Your task to perform on an android device: toggle translation in the chrome app Image 0: 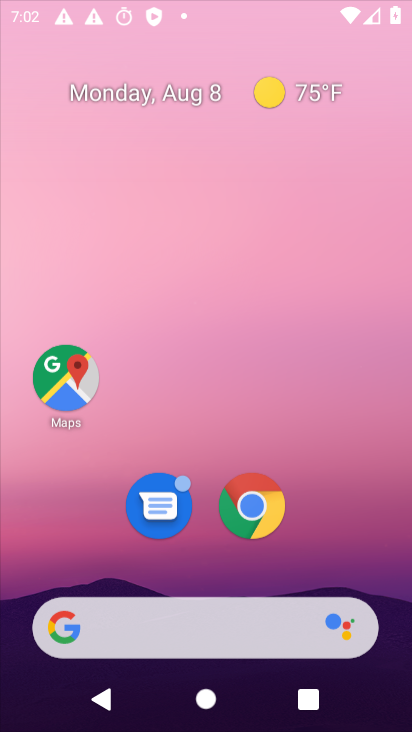
Step 0: press home button
Your task to perform on an android device: toggle translation in the chrome app Image 1: 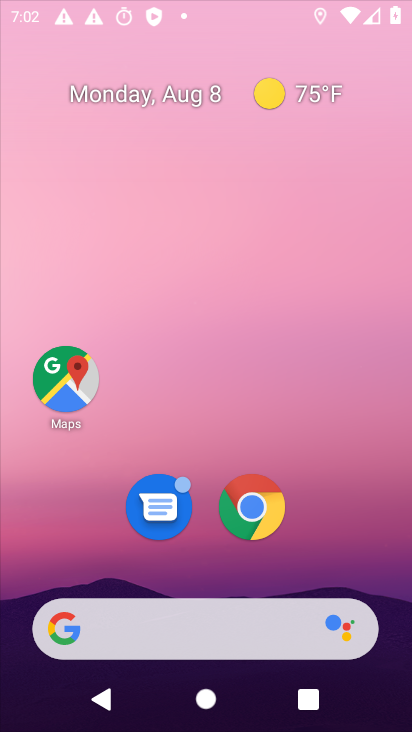
Step 1: drag from (241, 649) to (282, 102)
Your task to perform on an android device: toggle translation in the chrome app Image 2: 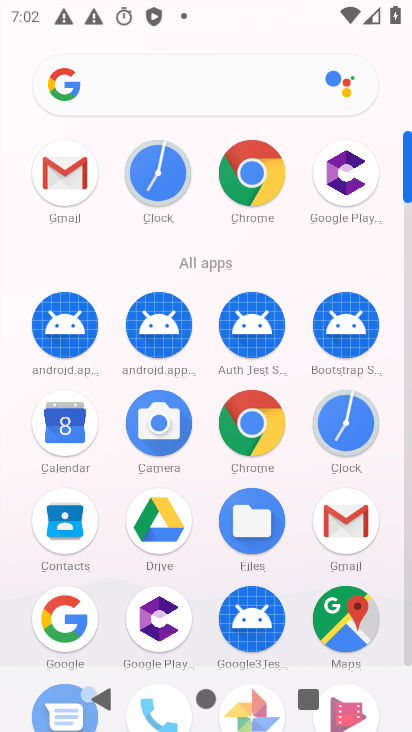
Step 2: click (239, 408)
Your task to perform on an android device: toggle translation in the chrome app Image 3: 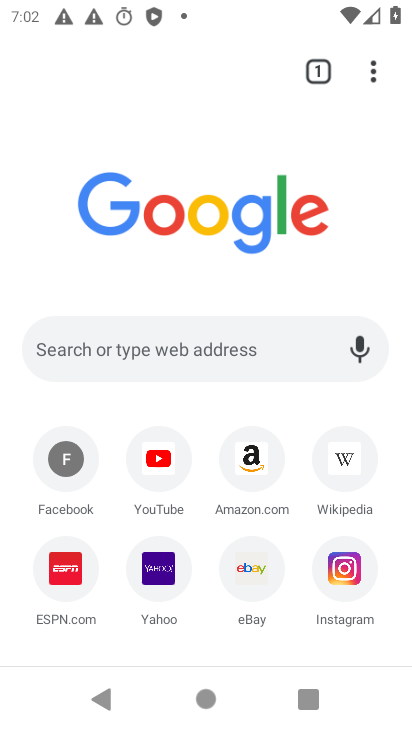
Step 3: click (362, 82)
Your task to perform on an android device: toggle translation in the chrome app Image 4: 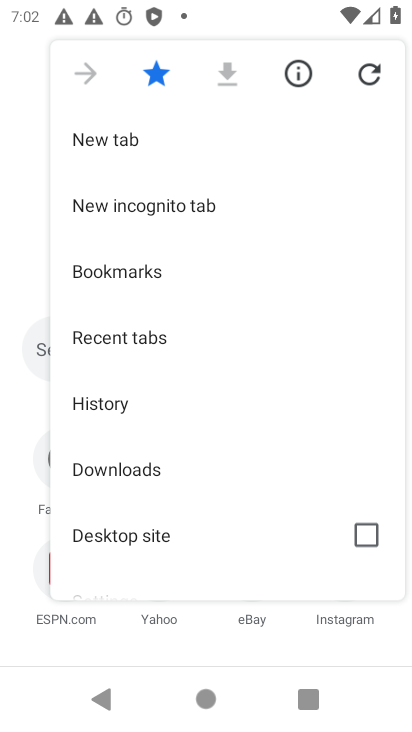
Step 4: drag from (171, 548) to (166, 424)
Your task to perform on an android device: toggle translation in the chrome app Image 5: 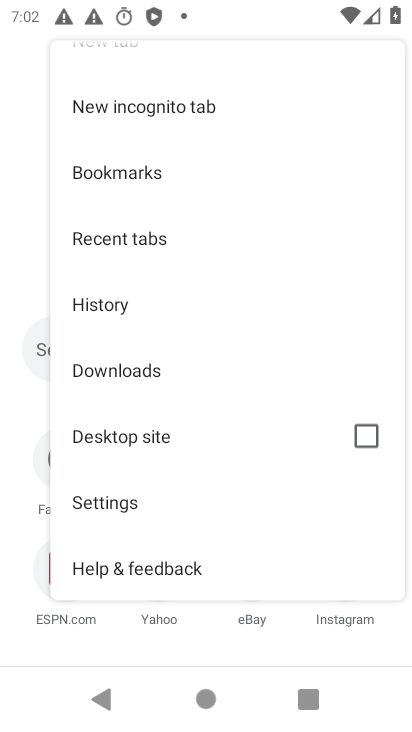
Step 5: click (140, 508)
Your task to perform on an android device: toggle translation in the chrome app Image 6: 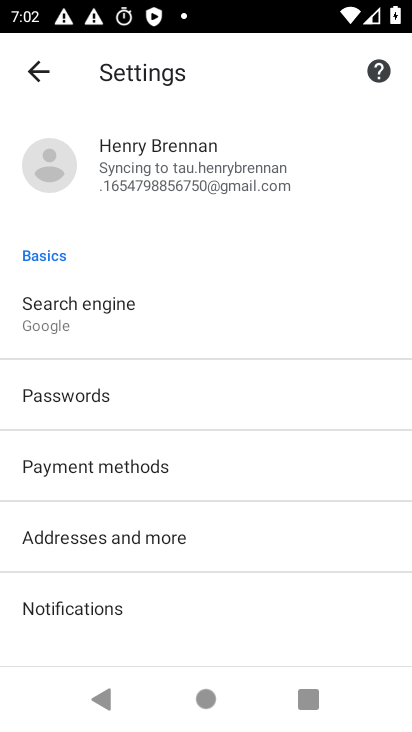
Step 6: drag from (199, 569) to (241, 282)
Your task to perform on an android device: toggle translation in the chrome app Image 7: 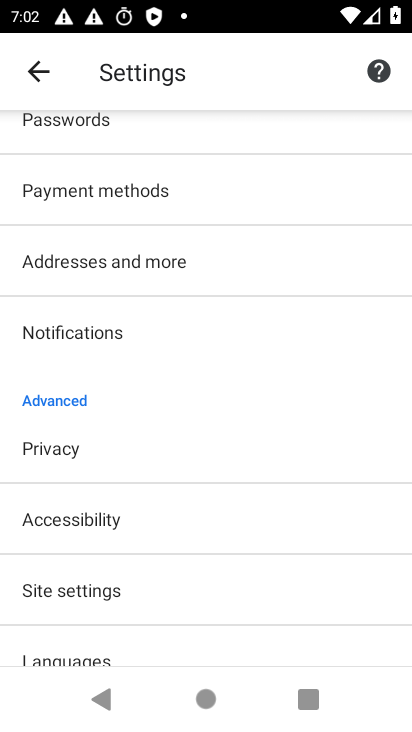
Step 7: click (135, 645)
Your task to perform on an android device: toggle translation in the chrome app Image 8: 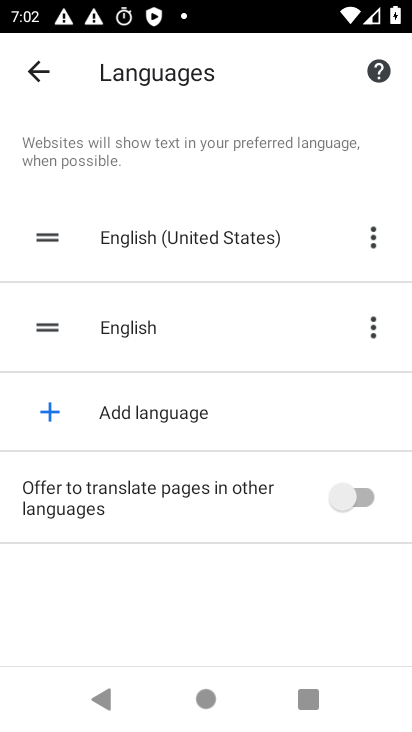
Step 8: task complete